Your task to perform on an android device: Open CNN.com Image 0: 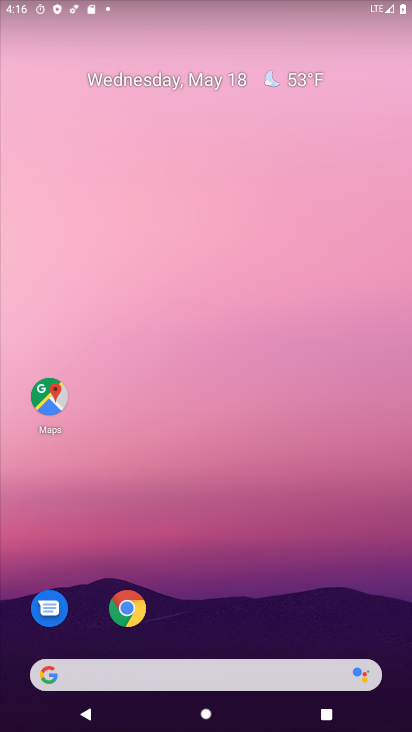
Step 0: drag from (276, 593) to (244, 138)
Your task to perform on an android device: Open CNN.com Image 1: 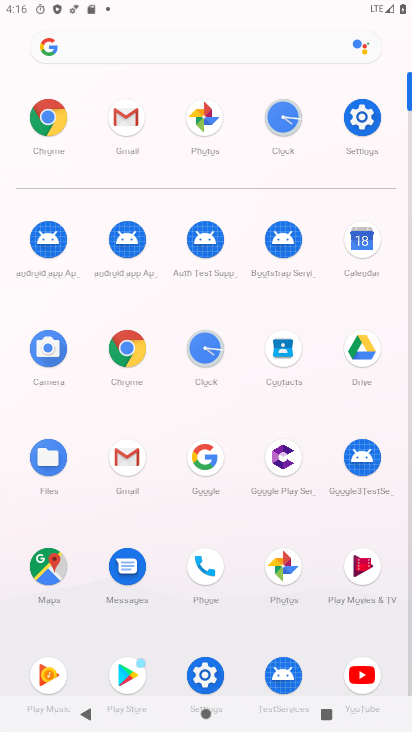
Step 1: click (122, 350)
Your task to perform on an android device: Open CNN.com Image 2: 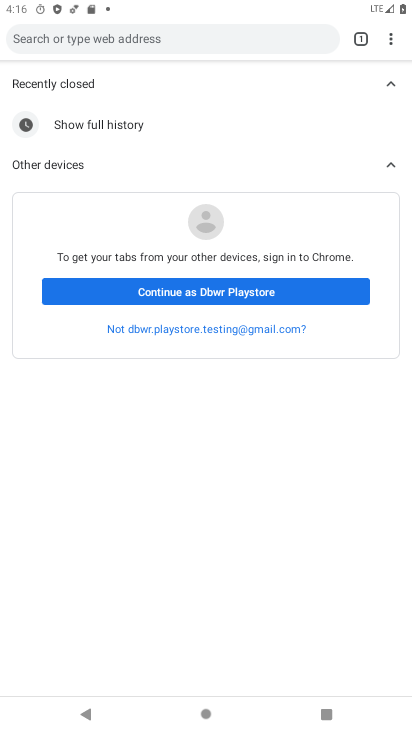
Step 2: click (188, 46)
Your task to perform on an android device: Open CNN.com Image 3: 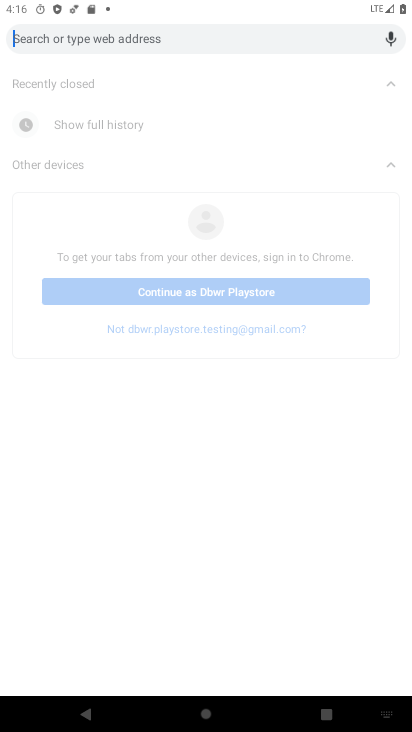
Step 3: type "cnn.com"
Your task to perform on an android device: Open CNN.com Image 4: 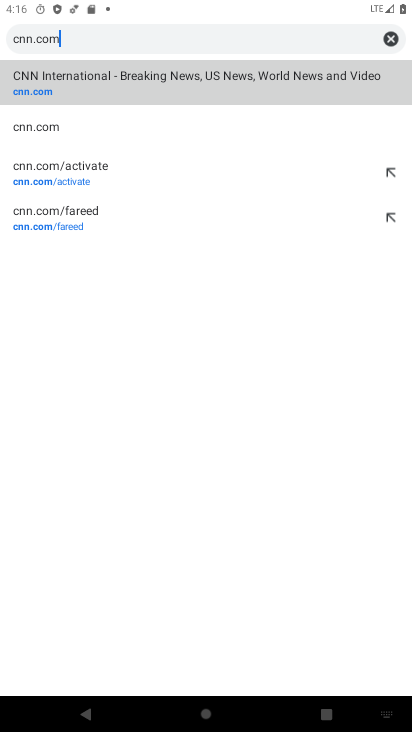
Step 4: click (117, 69)
Your task to perform on an android device: Open CNN.com Image 5: 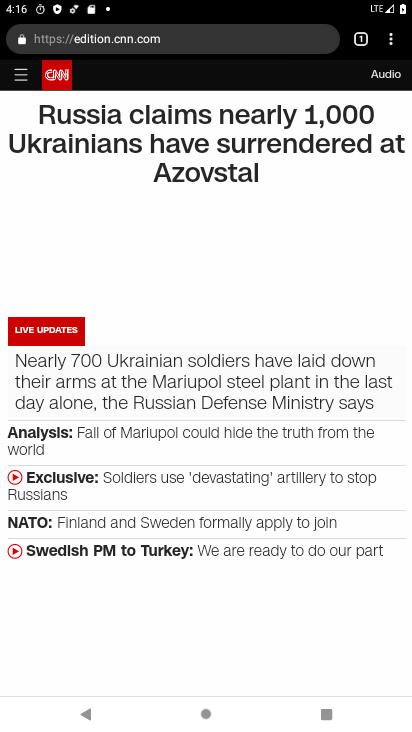
Step 5: task complete